Your task to perform on an android device: open a new tab in the chrome app Image 0: 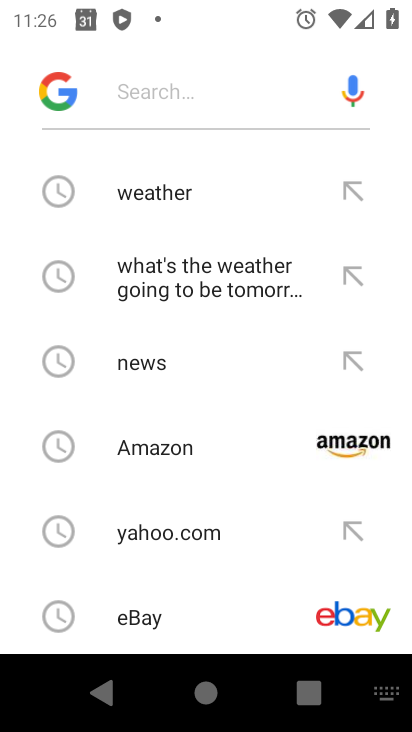
Step 0: press home button
Your task to perform on an android device: open a new tab in the chrome app Image 1: 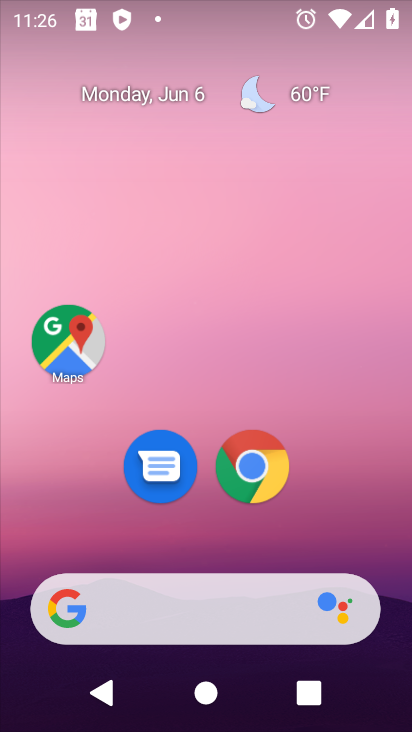
Step 1: drag from (280, 562) to (409, 74)
Your task to perform on an android device: open a new tab in the chrome app Image 2: 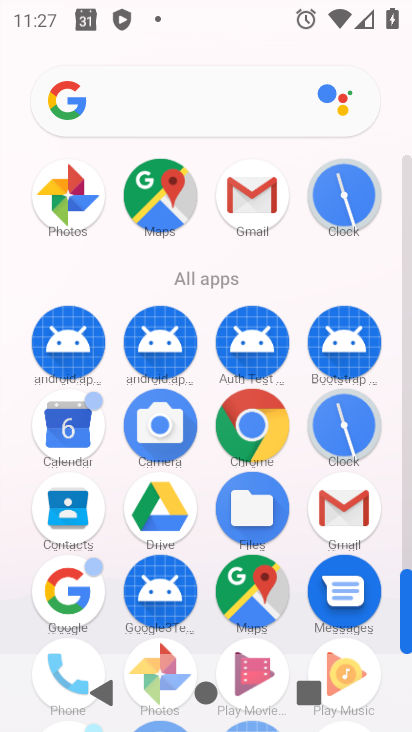
Step 2: click (272, 427)
Your task to perform on an android device: open a new tab in the chrome app Image 3: 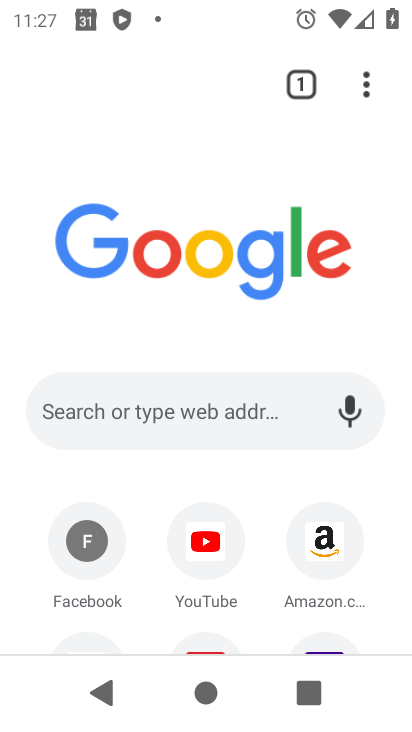
Step 3: task complete